Your task to perform on an android device: Open settings on Google Maps Image 0: 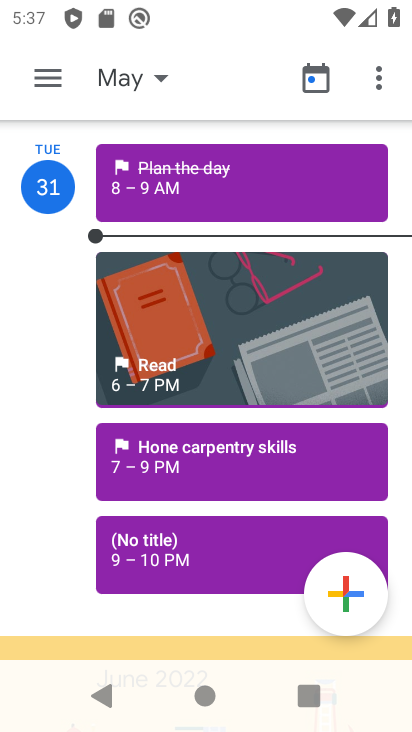
Step 0: press home button
Your task to perform on an android device: Open settings on Google Maps Image 1: 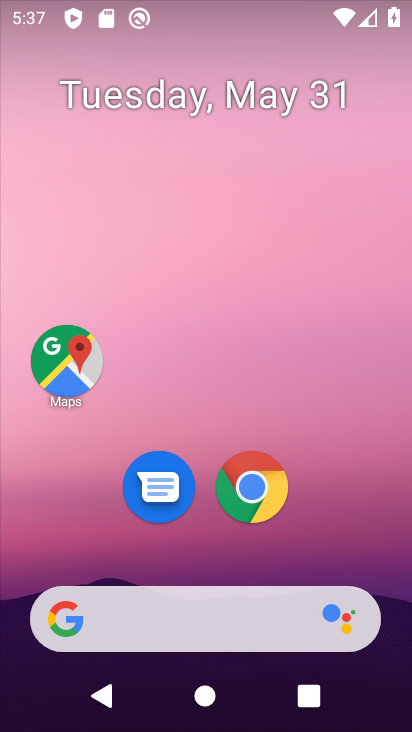
Step 1: click (67, 375)
Your task to perform on an android device: Open settings on Google Maps Image 2: 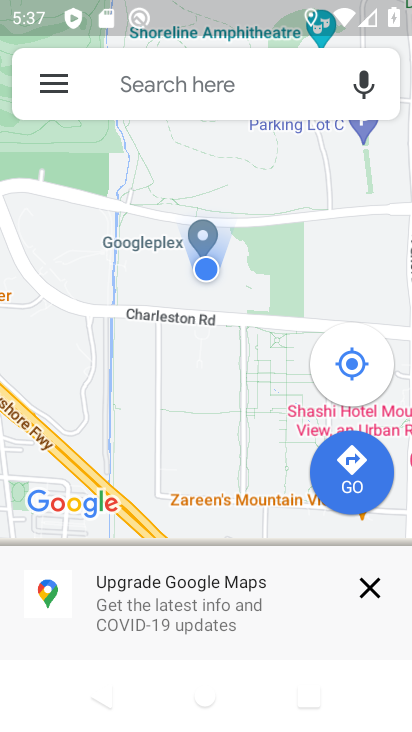
Step 2: click (49, 86)
Your task to perform on an android device: Open settings on Google Maps Image 3: 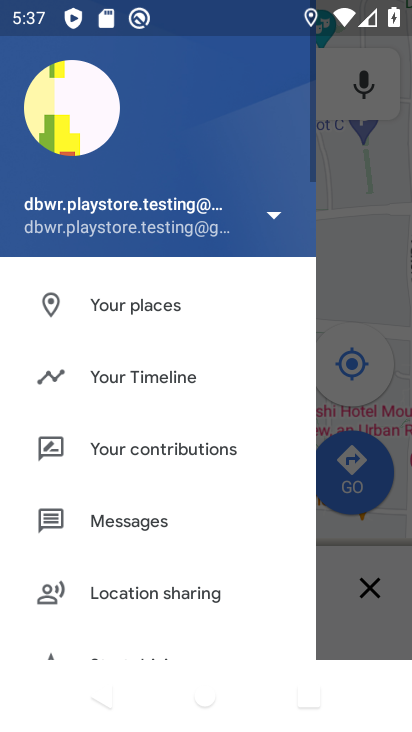
Step 3: drag from (189, 582) to (178, 299)
Your task to perform on an android device: Open settings on Google Maps Image 4: 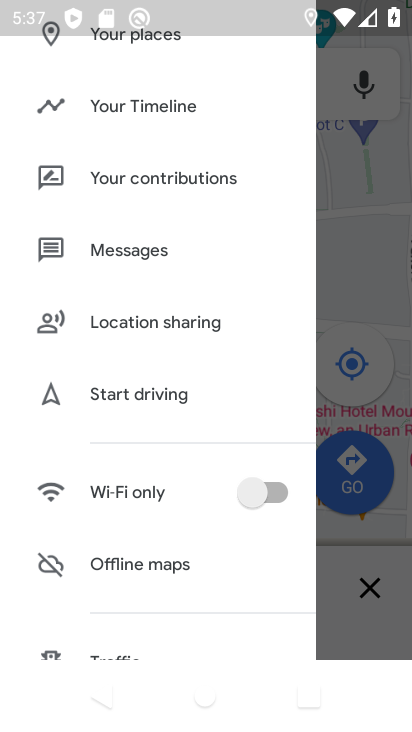
Step 4: drag from (198, 598) to (176, 279)
Your task to perform on an android device: Open settings on Google Maps Image 5: 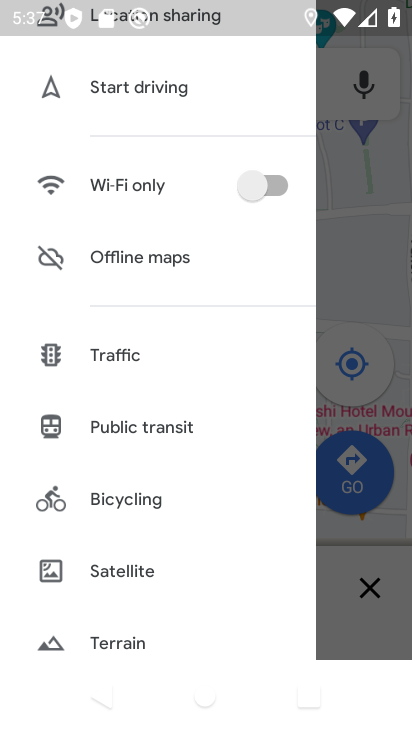
Step 5: drag from (170, 534) to (159, 165)
Your task to perform on an android device: Open settings on Google Maps Image 6: 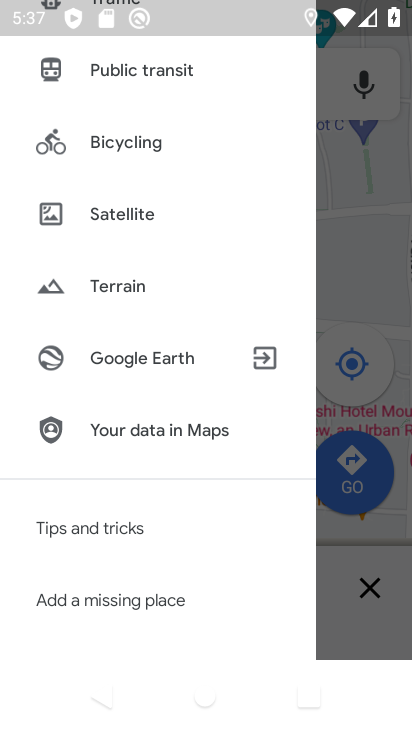
Step 6: drag from (204, 512) to (196, 139)
Your task to perform on an android device: Open settings on Google Maps Image 7: 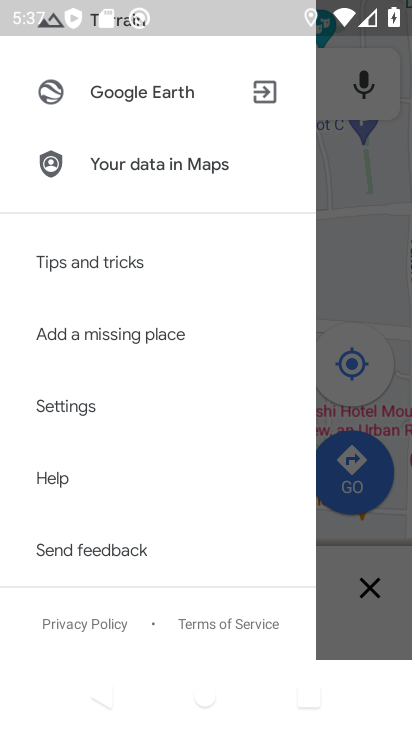
Step 7: click (56, 407)
Your task to perform on an android device: Open settings on Google Maps Image 8: 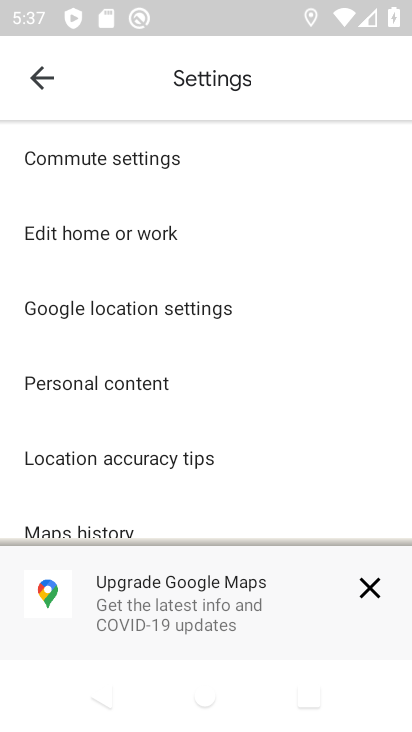
Step 8: task complete